Your task to perform on an android device: Open the calendar and show me this week's events Image 0: 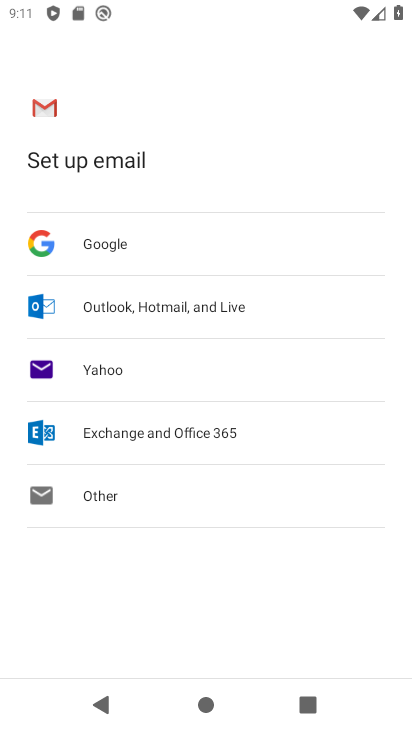
Step 0: press home button
Your task to perform on an android device: Open the calendar and show me this week's events Image 1: 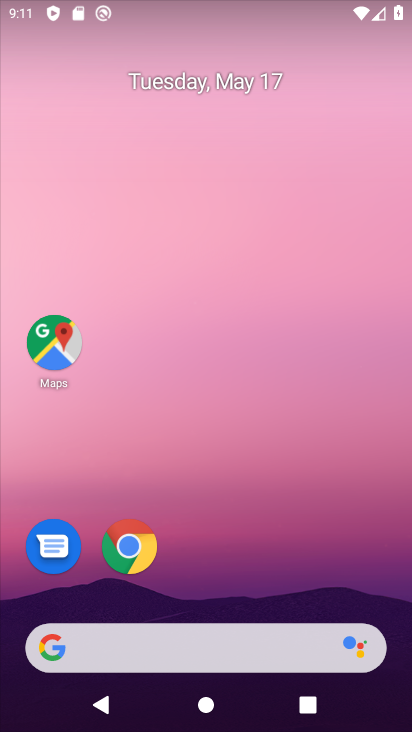
Step 1: drag from (233, 554) to (211, 87)
Your task to perform on an android device: Open the calendar and show me this week's events Image 2: 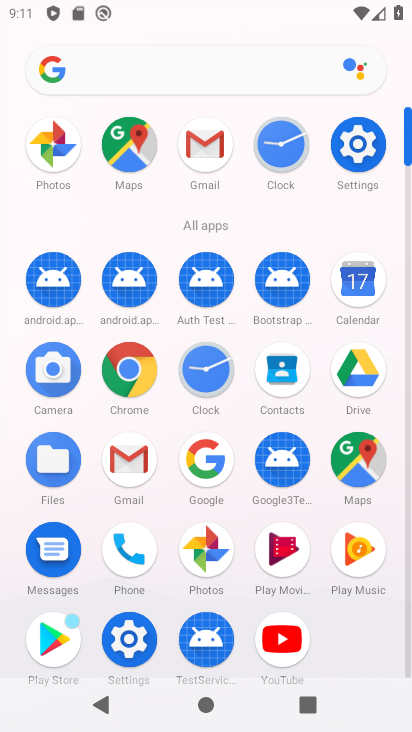
Step 2: click (352, 284)
Your task to perform on an android device: Open the calendar and show me this week's events Image 3: 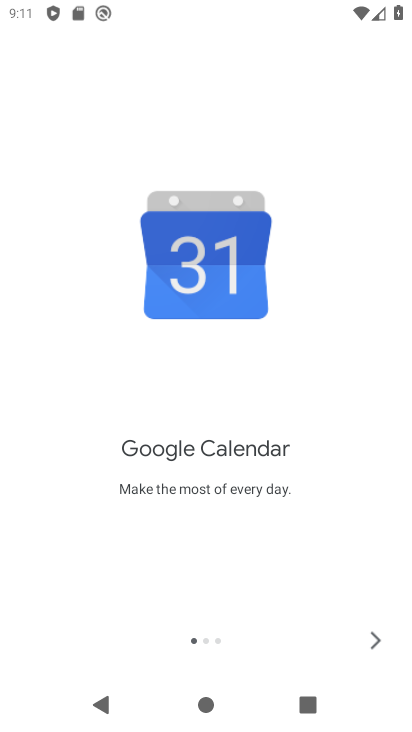
Step 3: click (373, 638)
Your task to perform on an android device: Open the calendar and show me this week's events Image 4: 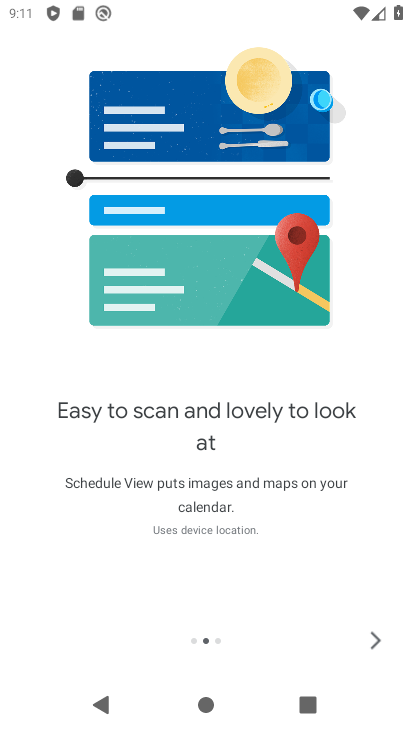
Step 4: click (373, 638)
Your task to perform on an android device: Open the calendar and show me this week's events Image 5: 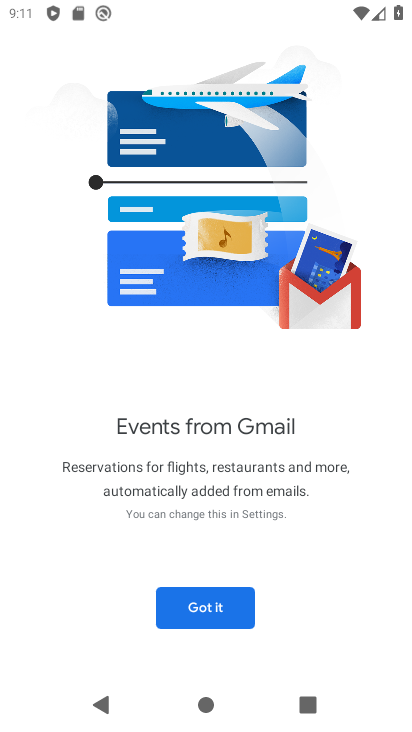
Step 5: click (214, 610)
Your task to perform on an android device: Open the calendar and show me this week's events Image 6: 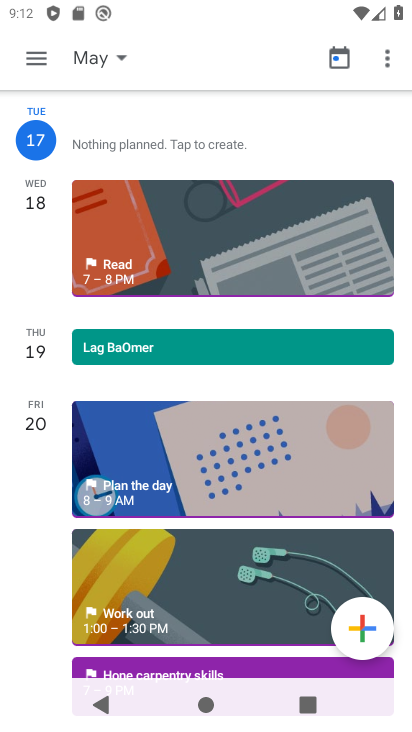
Step 6: click (31, 53)
Your task to perform on an android device: Open the calendar and show me this week's events Image 7: 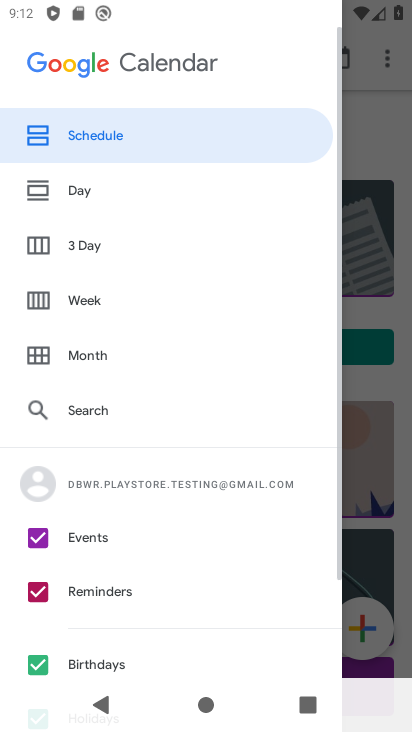
Step 7: click (78, 296)
Your task to perform on an android device: Open the calendar and show me this week's events Image 8: 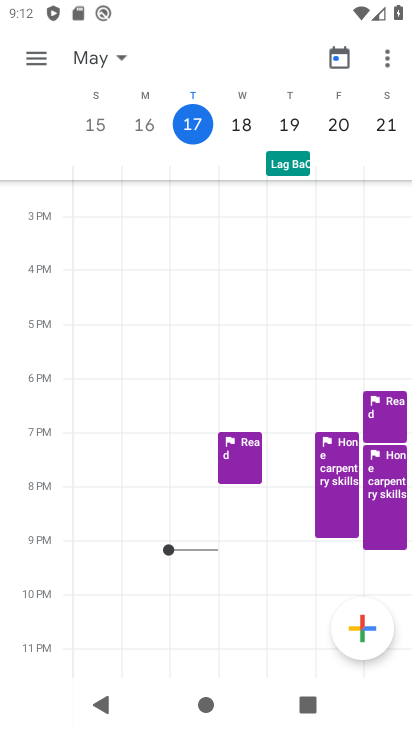
Step 8: drag from (160, 369) to (160, 172)
Your task to perform on an android device: Open the calendar and show me this week's events Image 9: 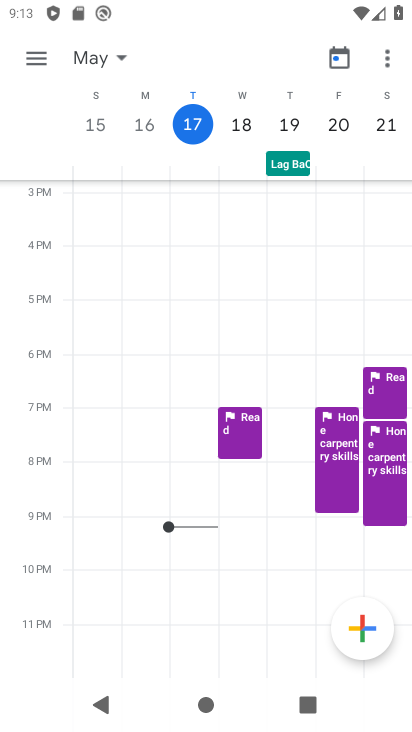
Step 9: click (250, 247)
Your task to perform on an android device: Open the calendar and show me this week's events Image 10: 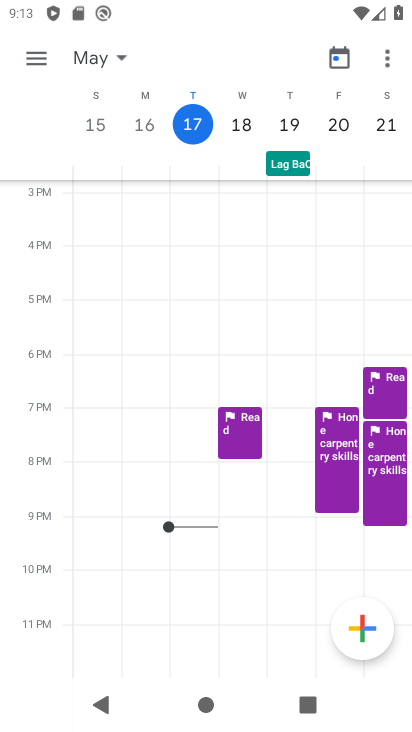
Step 10: task complete